Your task to perform on an android device: Go to Android settings Image 0: 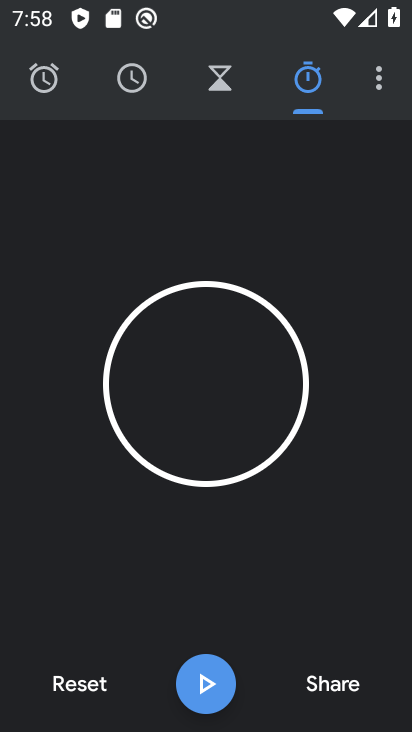
Step 0: press back button
Your task to perform on an android device: Go to Android settings Image 1: 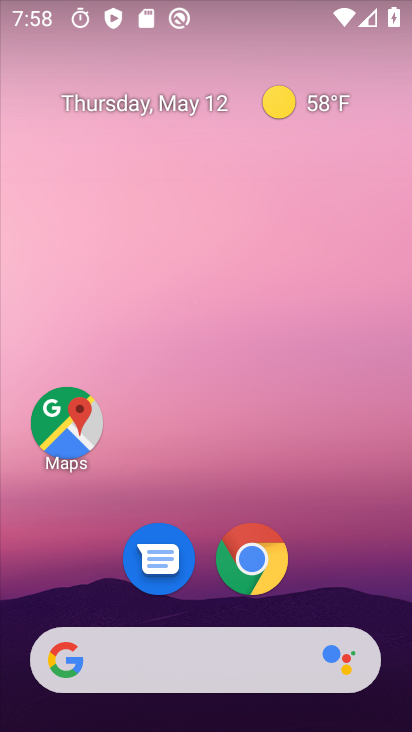
Step 1: drag from (330, 581) to (200, 82)
Your task to perform on an android device: Go to Android settings Image 2: 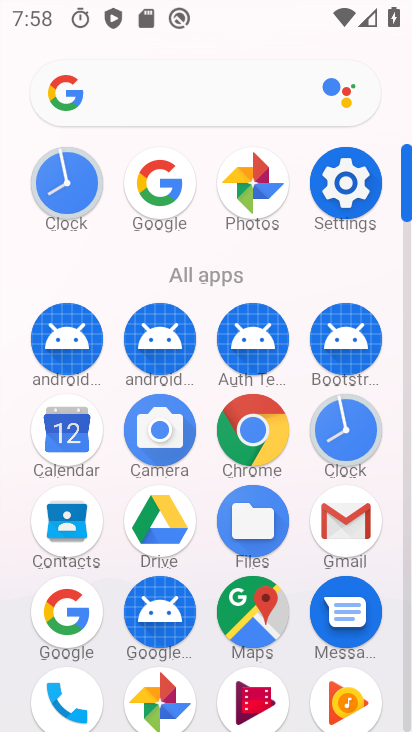
Step 2: click (346, 184)
Your task to perform on an android device: Go to Android settings Image 3: 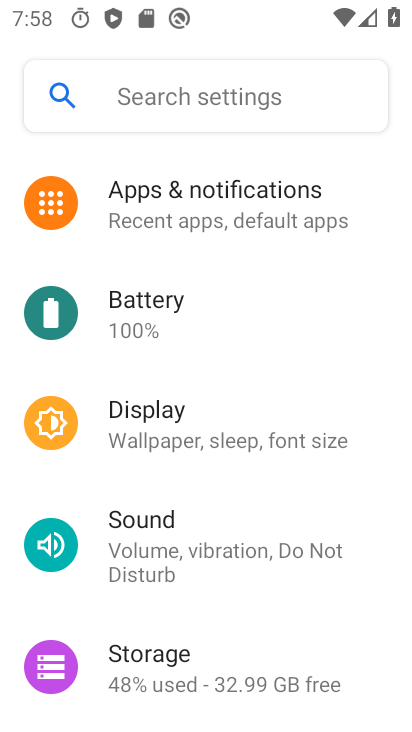
Step 3: task complete